Your task to perform on an android device: clear all cookies in the chrome app Image 0: 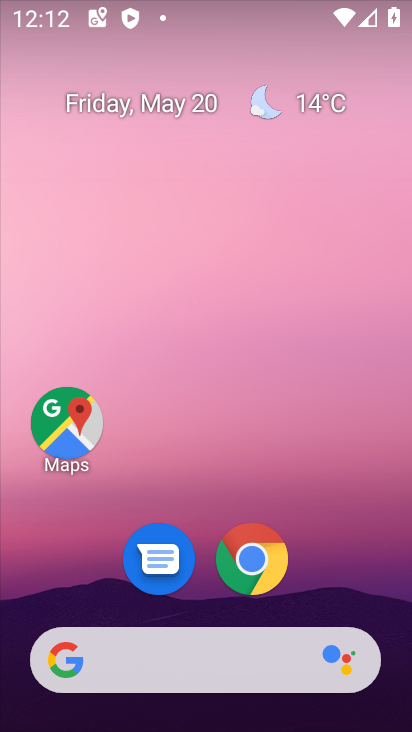
Step 0: task complete